Your task to perform on an android device: open app "ColorNote Notepad Notes" (install if not already installed) Image 0: 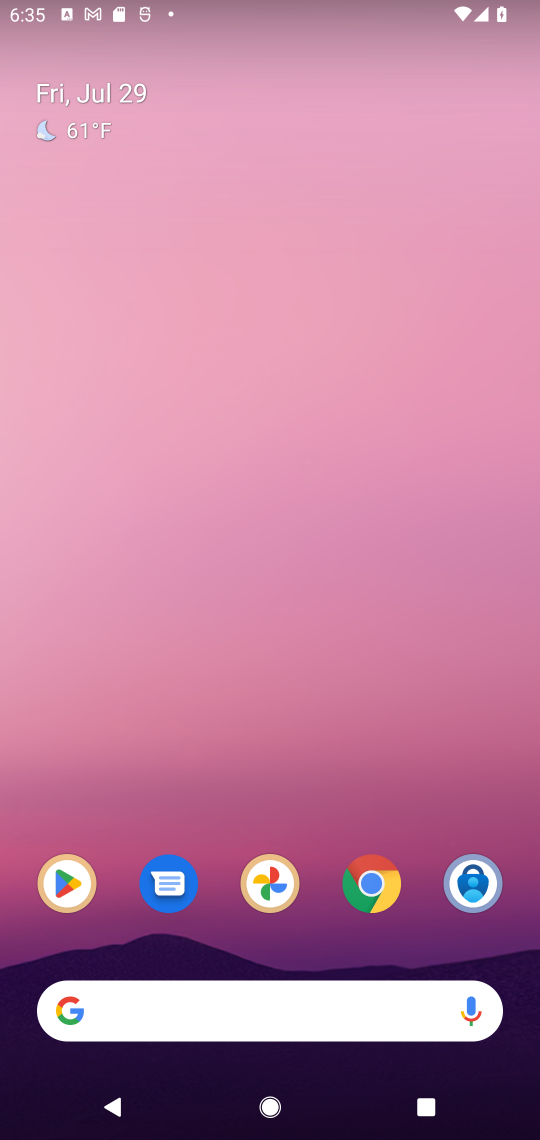
Step 0: click (74, 873)
Your task to perform on an android device: open app "ColorNote Notepad Notes" (install if not already installed) Image 1: 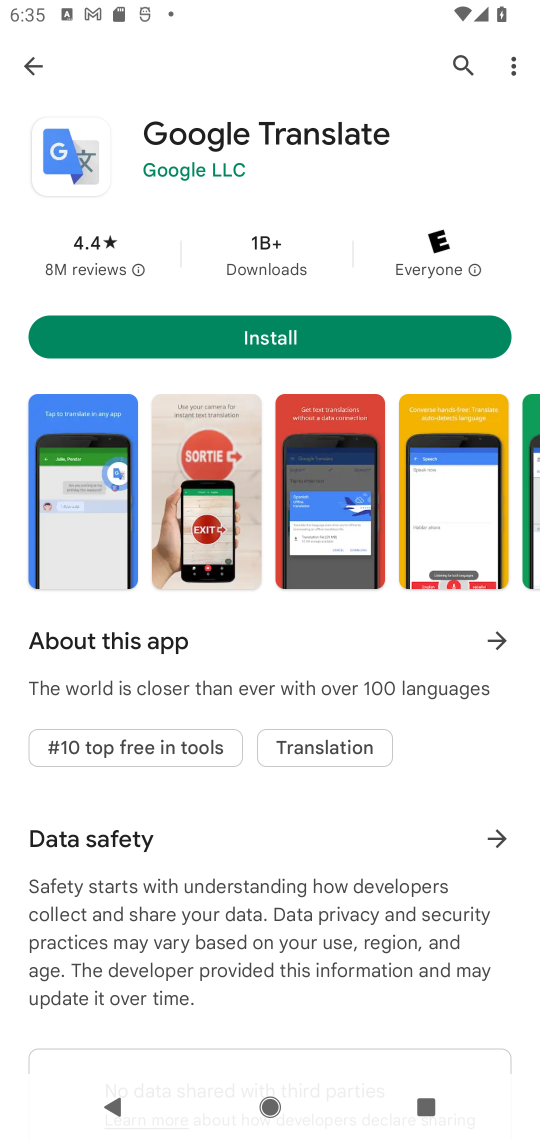
Step 1: click (456, 57)
Your task to perform on an android device: open app "ColorNote Notepad Notes" (install if not already installed) Image 2: 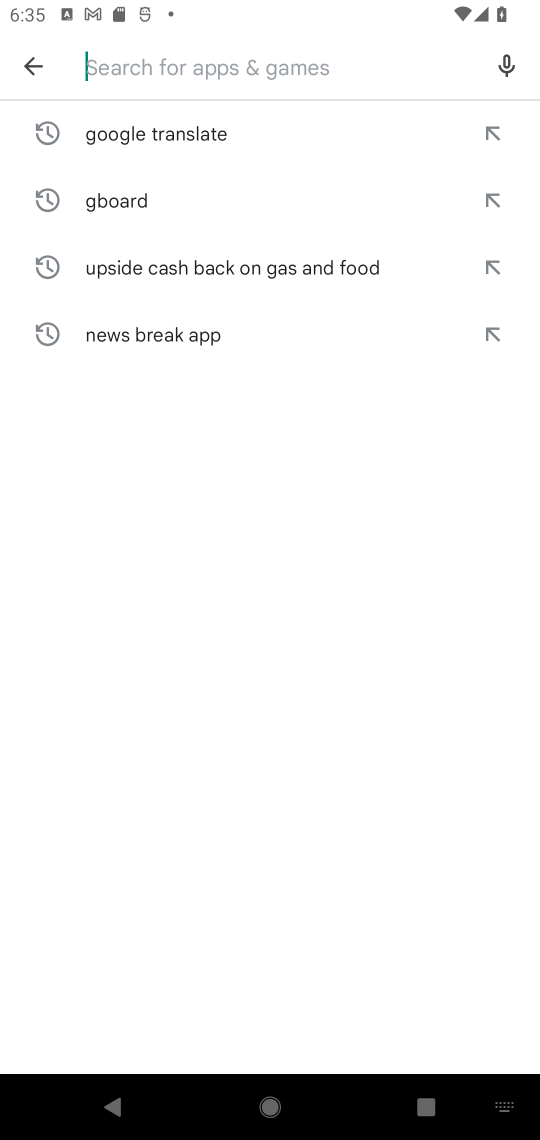
Step 2: click (168, 71)
Your task to perform on an android device: open app "ColorNote Notepad Notes" (install if not already installed) Image 3: 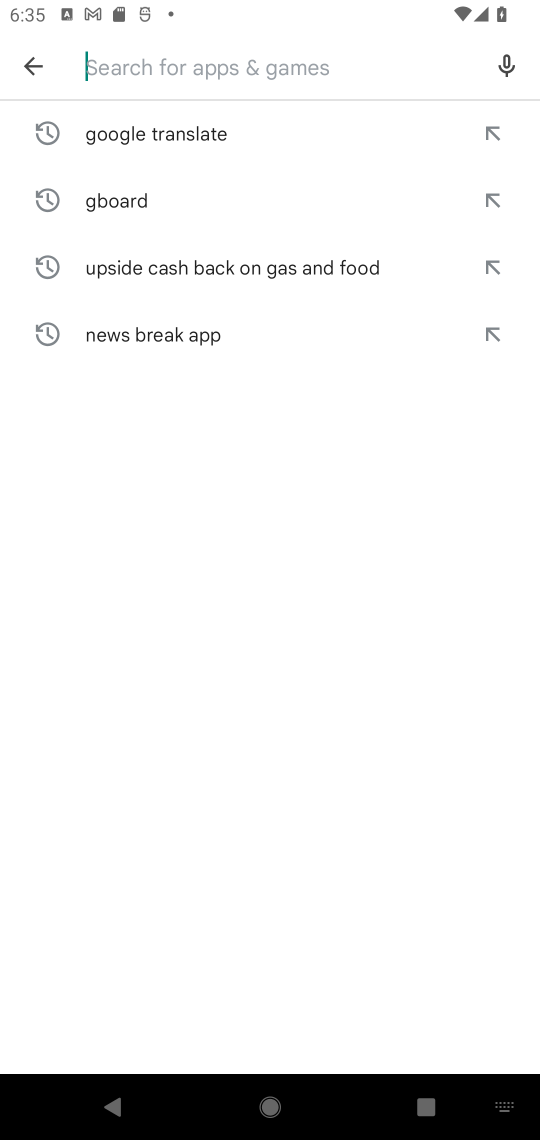
Step 3: type "colornotepad"
Your task to perform on an android device: open app "ColorNote Notepad Notes" (install if not already installed) Image 4: 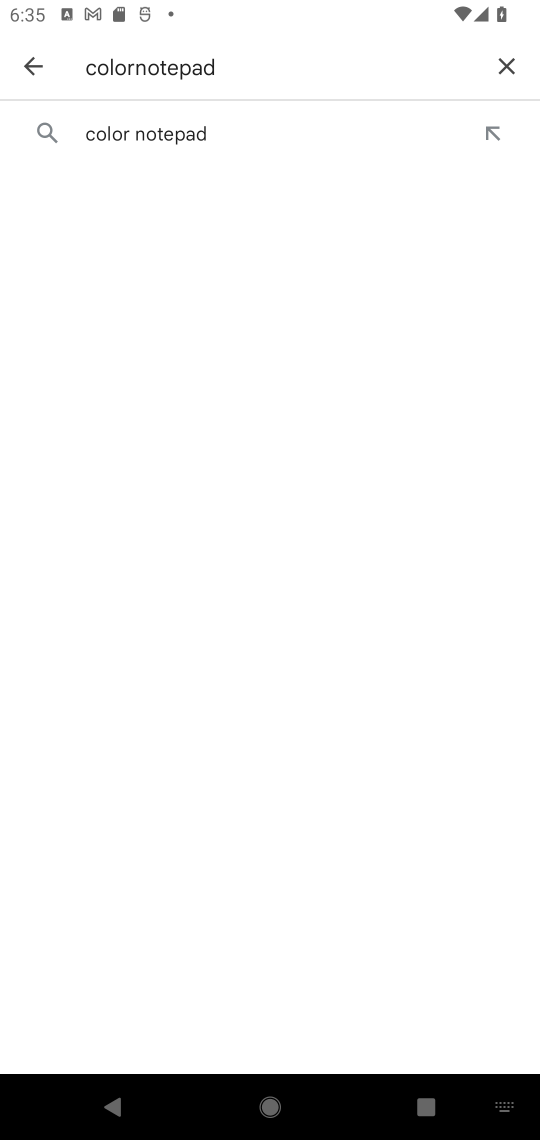
Step 4: click (180, 134)
Your task to perform on an android device: open app "ColorNote Notepad Notes" (install if not already installed) Image 5: 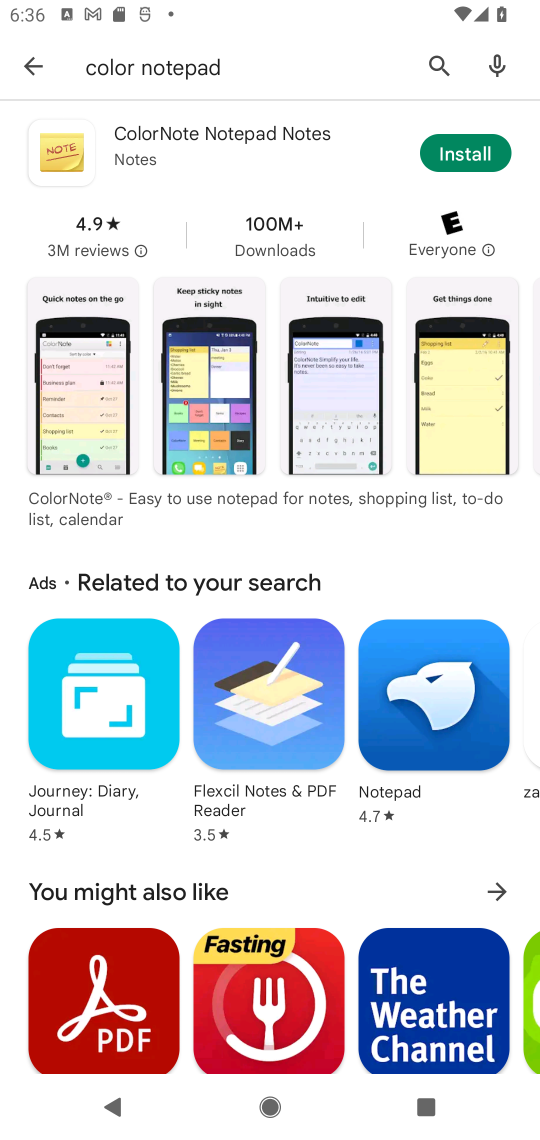
Step 5: click (444, 160)
Your task to perform on an android device: open app "ColorNote Notepad Notes" (install if not already installed) Image 6: 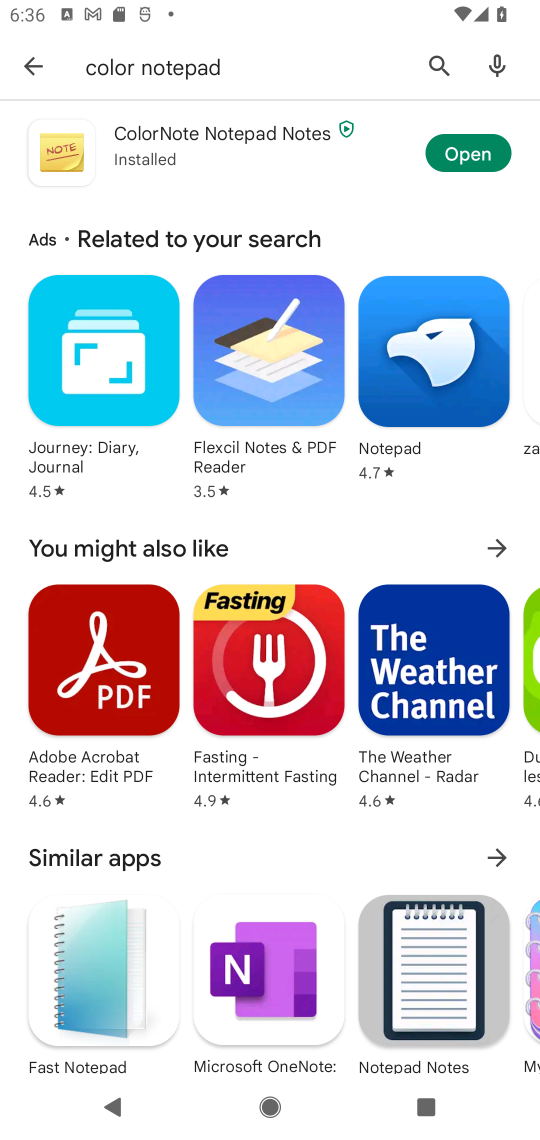
Step 6: click (462, 157)
Your task to perform on an android device: open app "ColorNote Notepad Notes" (install if not already installed) Image 7: 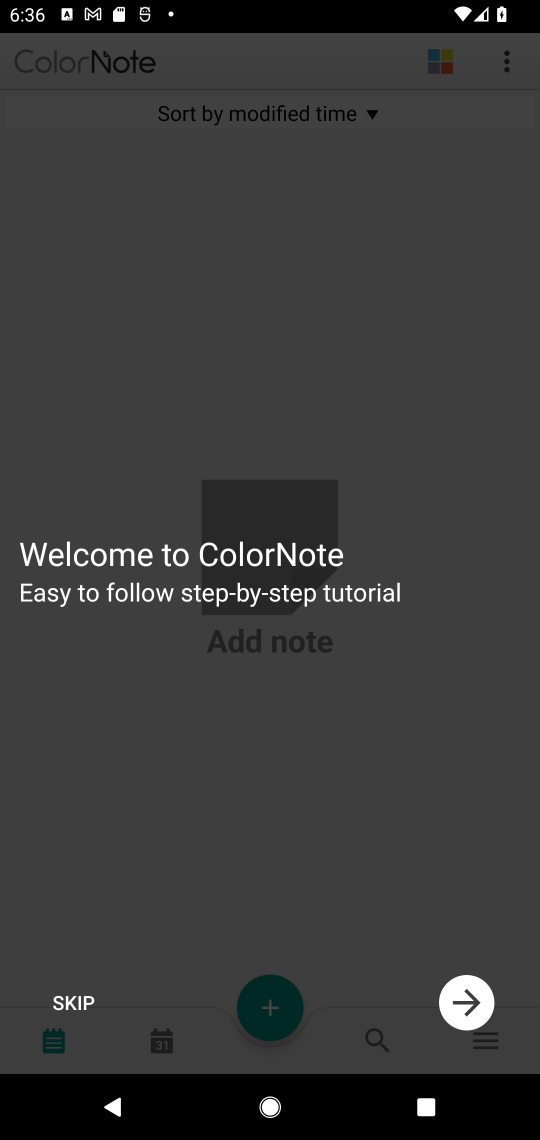
Step 7: task complete